Your task to perform on an android device: set the stopwatch Image 0: 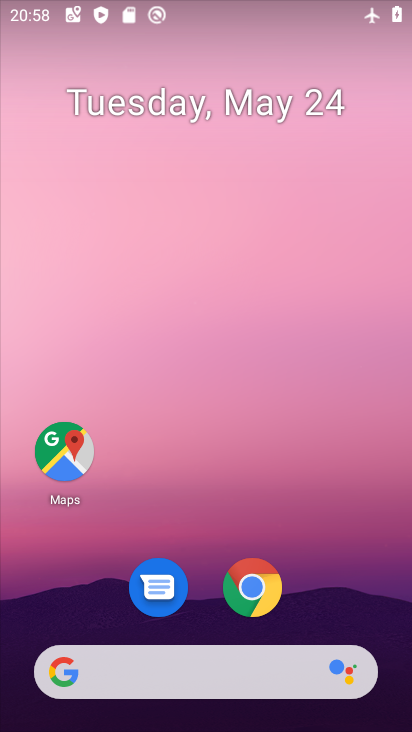
Step 0: drag from (299, 517) to (232, 30)
Your task to perform on an android device: set the stopwatch Image 1: 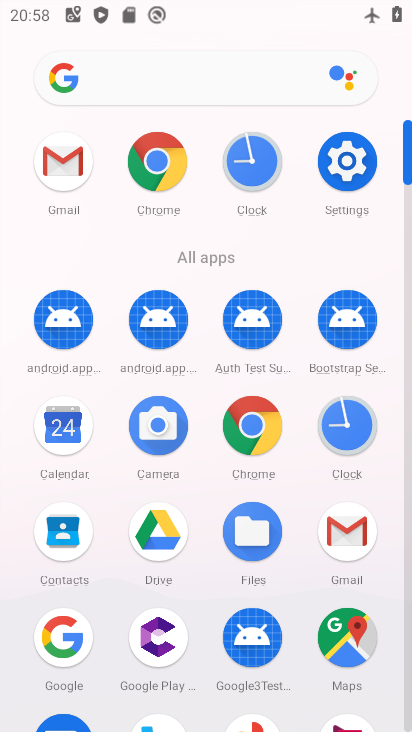
Step 1: drag from (3, 497) to (7, 250)
Your task to perform on an android device: set the stopwatch Image 2: 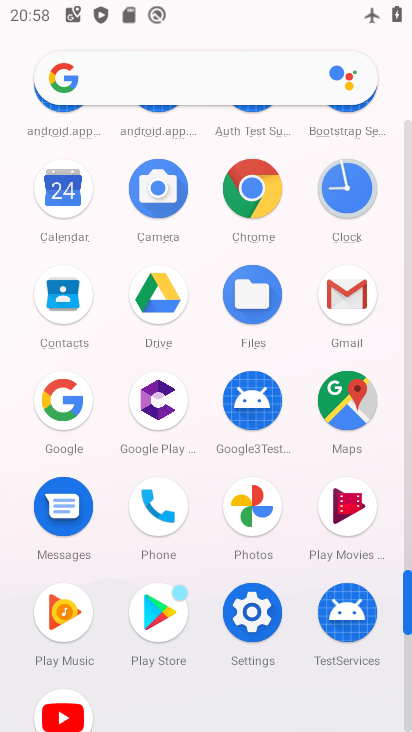
Step 2: click (350, 189)
Your task to perform on an android device: set the stopwatch Image 3: 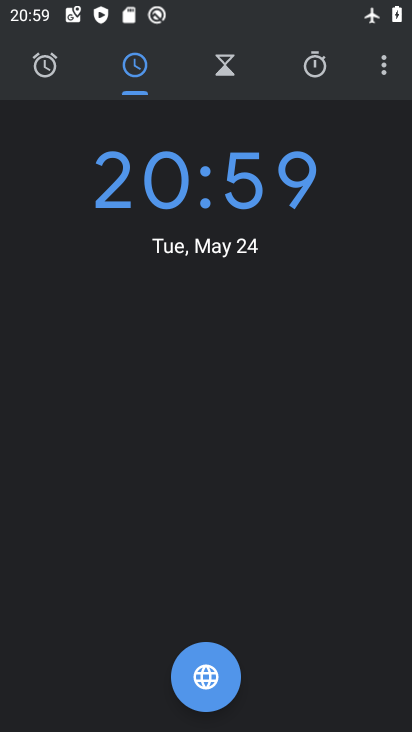
Step 3: click (317, 60)
Your task to perform on an android device: set the stopwatch Image 4: 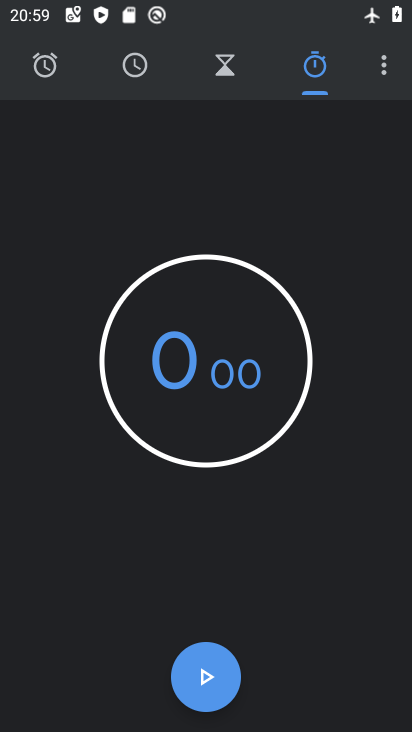
Step 4: click (196, 677)
Your task to perform on an android device: set the stopwatch Image 5: 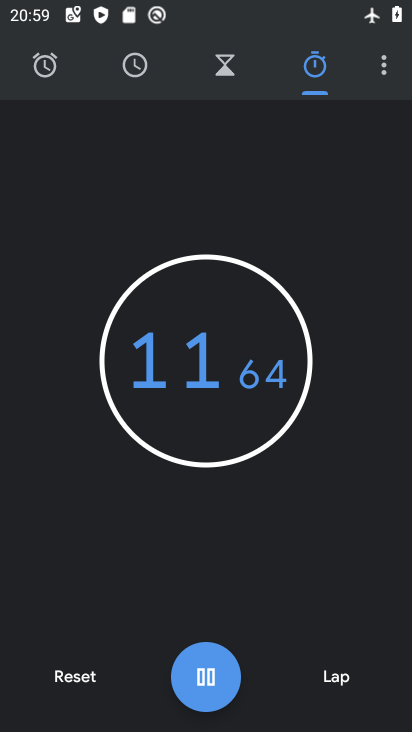
Step 5: task complete